Your task to perform on an android device: turn on translation in the chrome app Image 0: 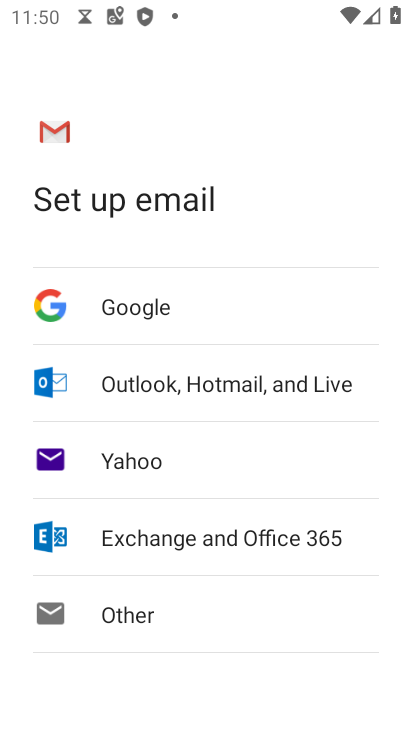
Step 0: press home button
Your task to perform on an android device: turn on translation in the chrome app Image 1: 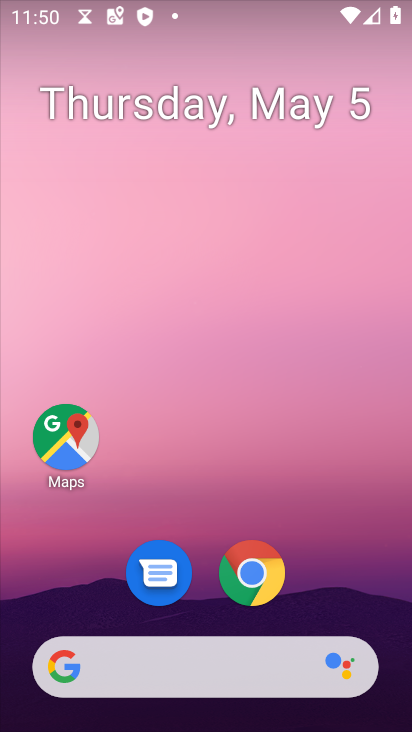
Step 1: drag from (343, 599) to (349, 277)
Your task to perform on an android device: turn on translation in the chrome app Image 2: 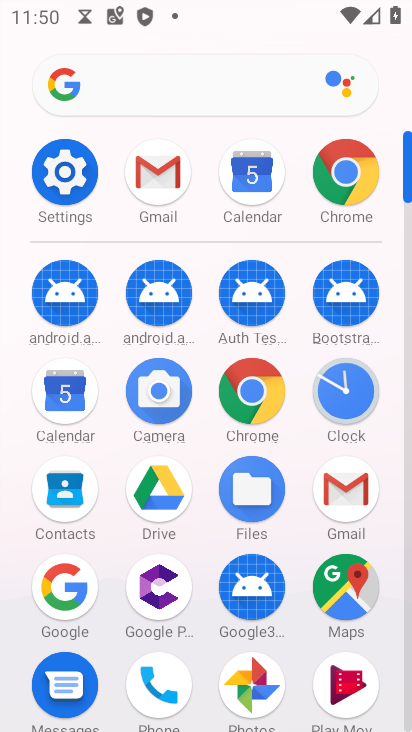
Step 2: click (234, 388)
Your task to perform on an android device: turn on translation in the chrome app Image 3: 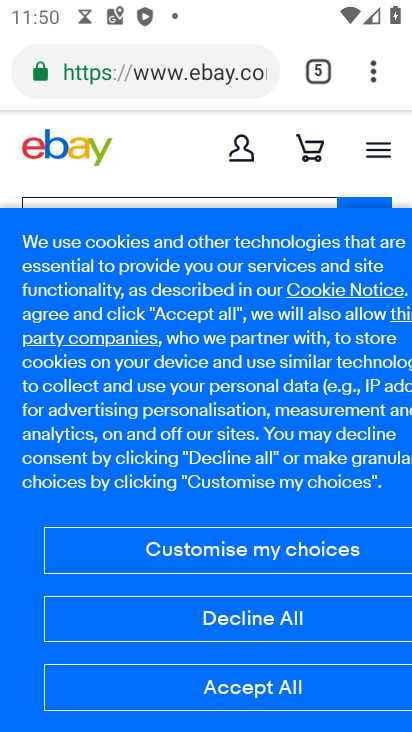
Step 3: click (373, 64)
Your task to perform on an android device: turn on translation in the chrome app Image 4: 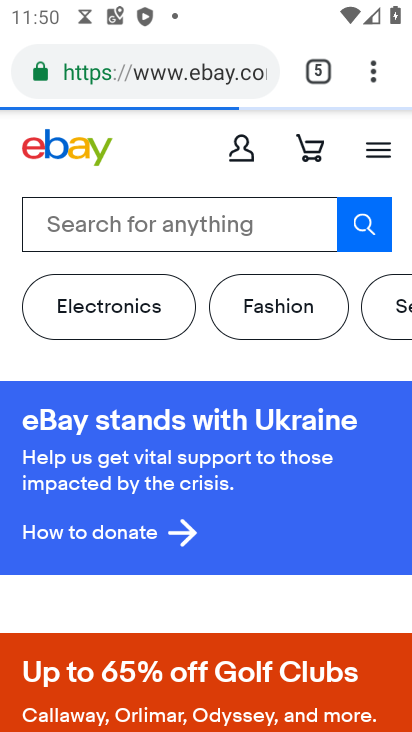
Step 4: click (373, 64)
Your task to perform on an android device: turn on translation in the chrome app Image 5: 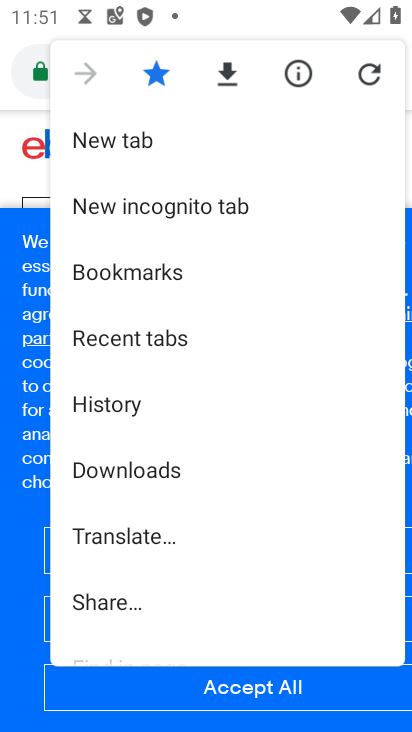
Step 5: drag from (221, 595) to (224, 258)
Your task to perform on an android device: turn on translation in the chrome app Image 6: 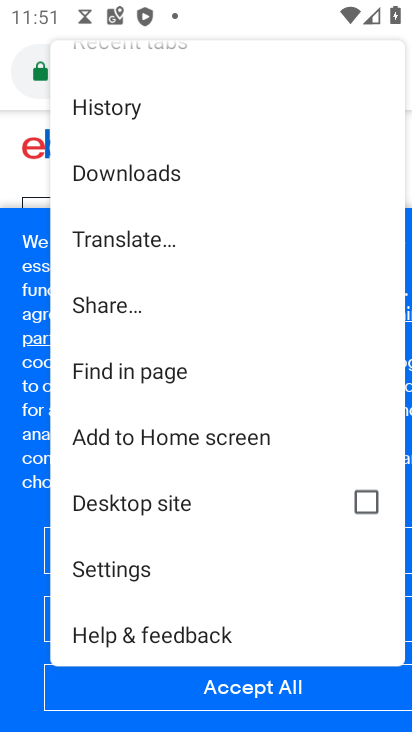
Step 6: click (143, 566)
Your task to perform on an android device: turn on translation in the chrome app Image 7: 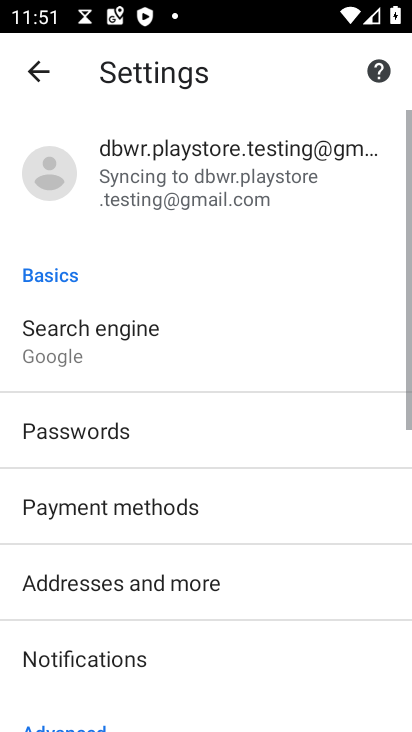
Step 7: drag from (161, 647) to (210, 244)
Your task to perform on an android device: turn on translation in the chrome app Image 8: 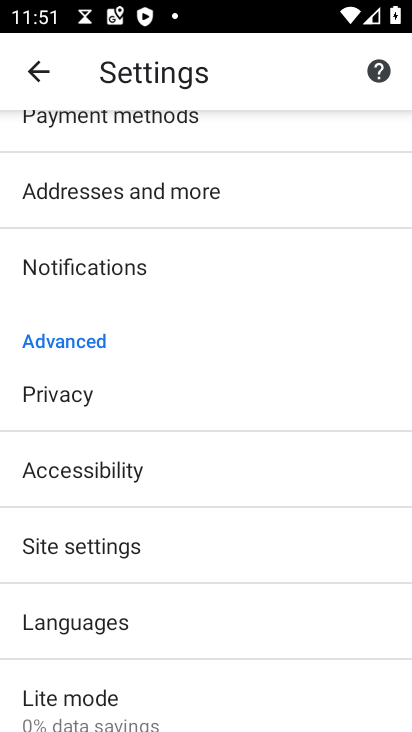
Step 8: click (135, 630)
Your task to perform on an android device: turn on translation in the chrome app Image 9: 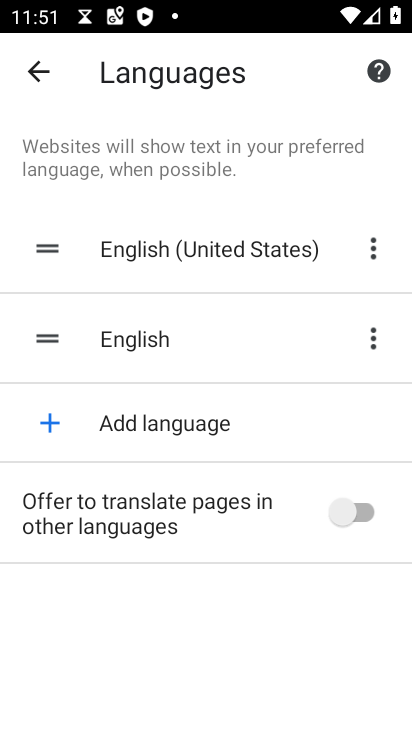
Step 9: click (354, 513)
Your task to perform on an android device: turn on translation in the chrome app Image 10: 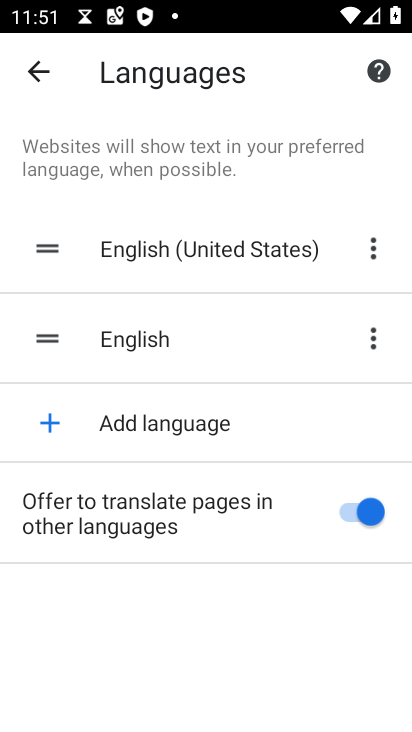
Step 10: task complete